Your task to perform on an android device: Go to Android settings Image 0: 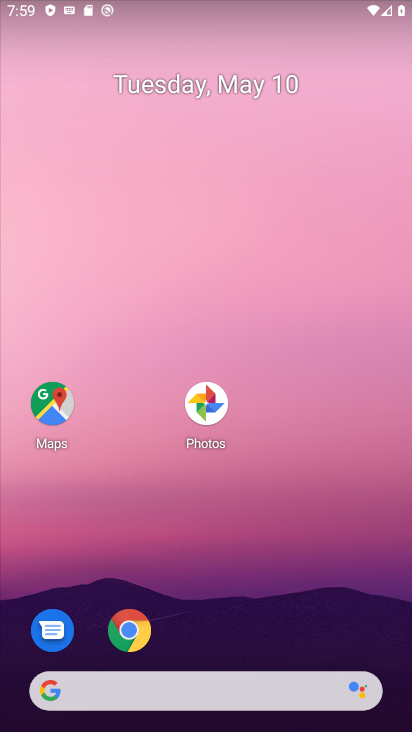
Step 0: drag from (204, 628) to (210, 43)
Your task to perform on an android device: Go to Android settings Image 1: 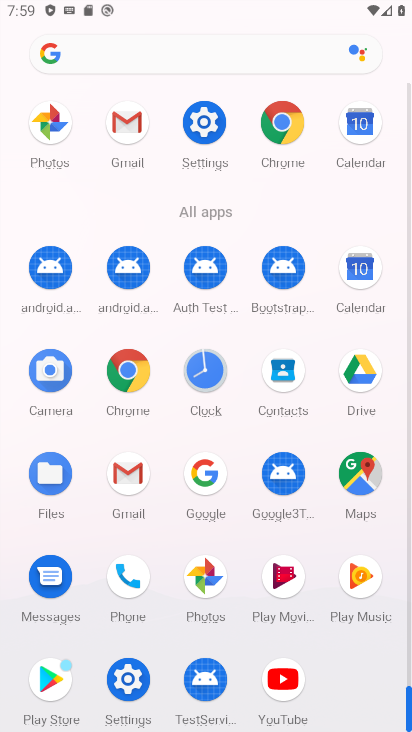
Step 1: click (210, 109)
Your task to perform on an android device: Go to Android settings Image 2: 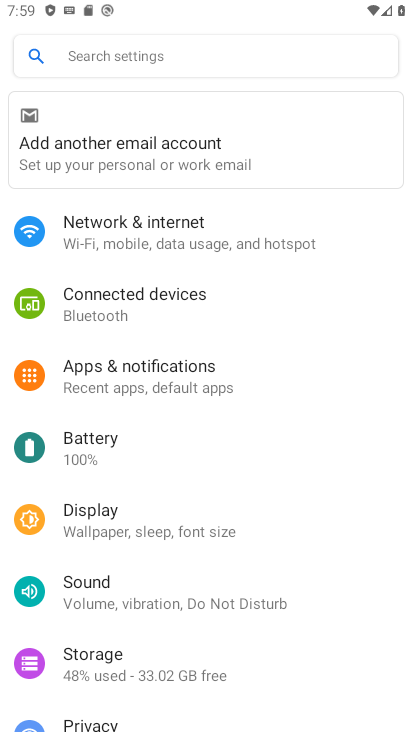
Step 2: drag from (187, 586) to (147, 69)
Your task to perform on an android device: Go to Android settings Image 3: 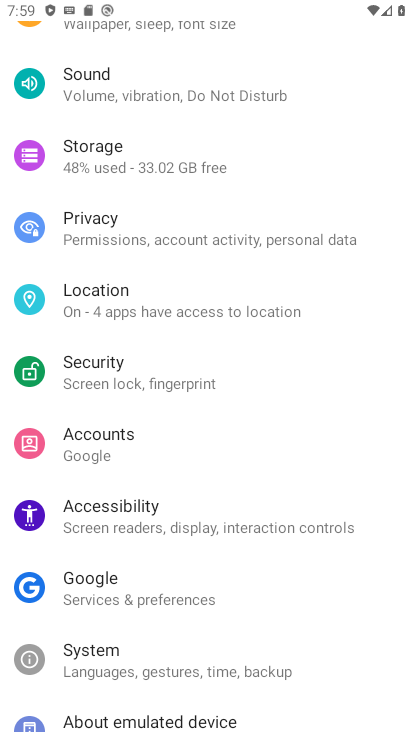
Step 3: click (127, 714)
Your task to perform on an android device: Go to Android settings Image 4: 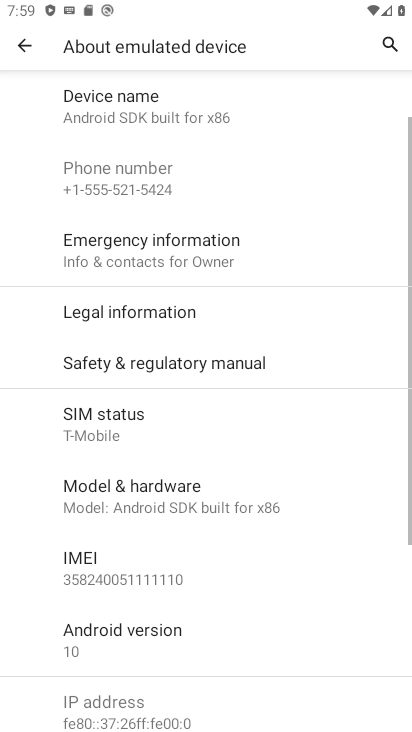
Step 4: task complete